Your task to perform on an android device: open sync settings in chrome Image 0: 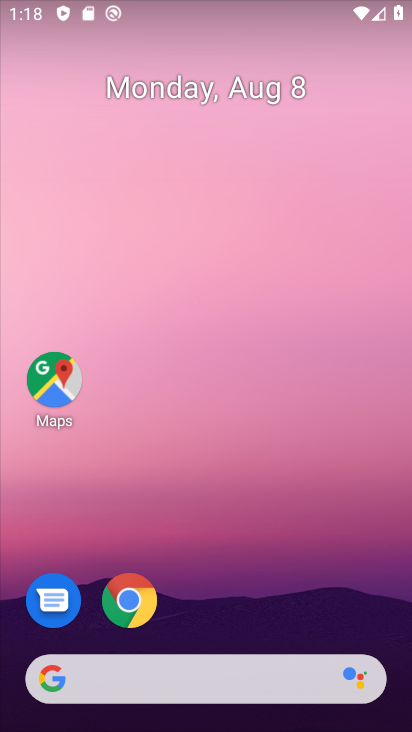
Step 0: drag from (288, 601) to (266, 22)
Your task to perform on an android device: open sync settings in chrome Image 1: 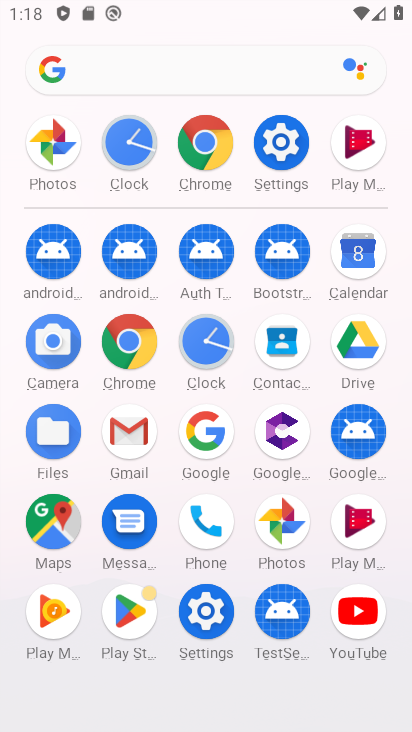
Step 1: click (186, 133)
Your task to perform on an android device: open sync settings in chrome Image 2: 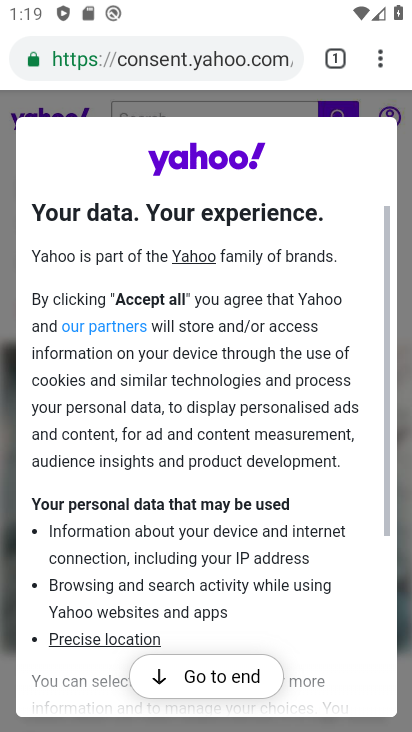
Step 2: drag from (379, 64) to (289, 714)
Your task to perform on an android device: open sync settings in chrome Image 3: 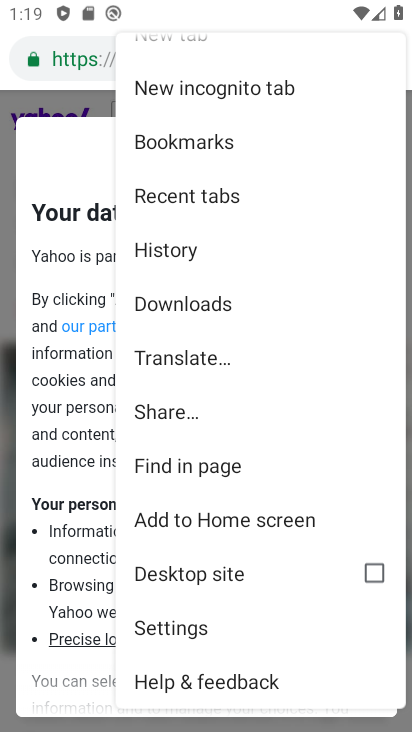
Step 3: click (212, 617)
Your task to perform on an android device: open sync settings in chrome Image 4: 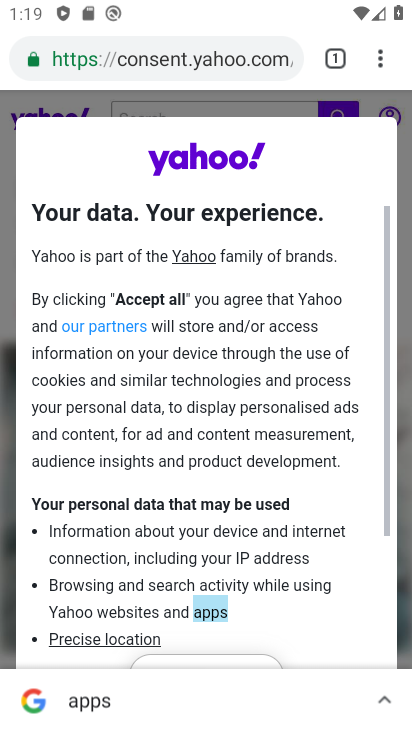
Step 4: drag from (377, 65) to (225, 619)
Your task to perform on an android device: open sync settings in chrome Image 5: 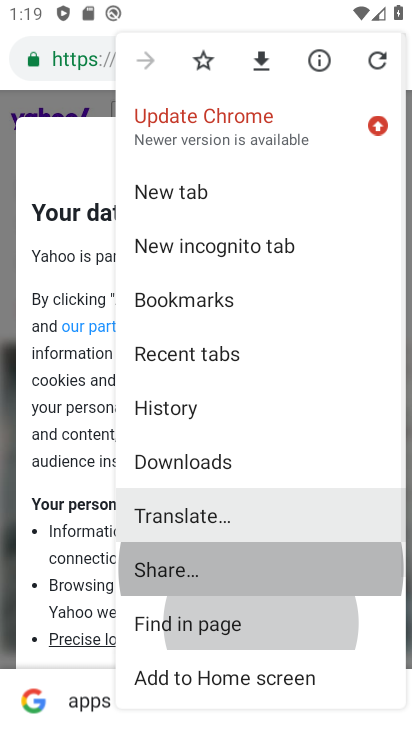
Step 5: click (225, 620)
Your task to perform on an android device: open sync settings in chrome Image 6: 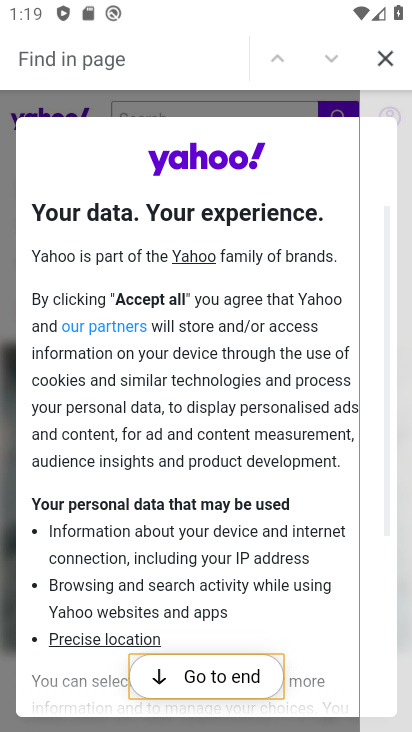
Step 6: click (378, 52)
Your task to perform on an android device: open sync settings in chrome Image 7: 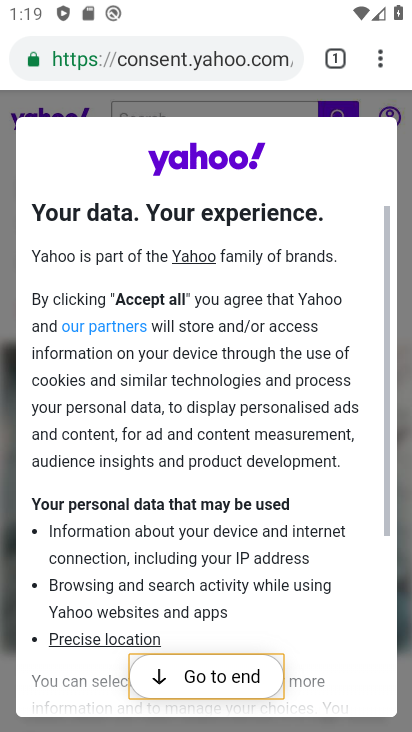
Step 7: click (378, 52)
Your task to perform on an android device: open sync settings in chrome Image 8: 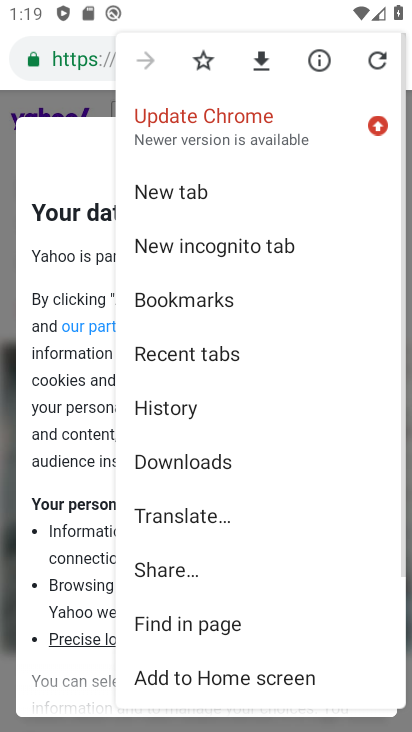
Step 8: drag from (251, 556) to (241, 241)
Your task to perform on an android device: open sync settings in chrome Image 9: 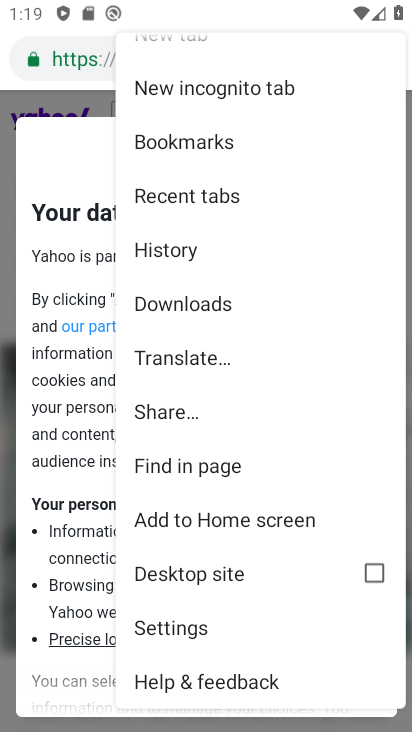
Step 9: click (176, 639)
Your task to perform on an android device: open sync settings in chrome Image 10: 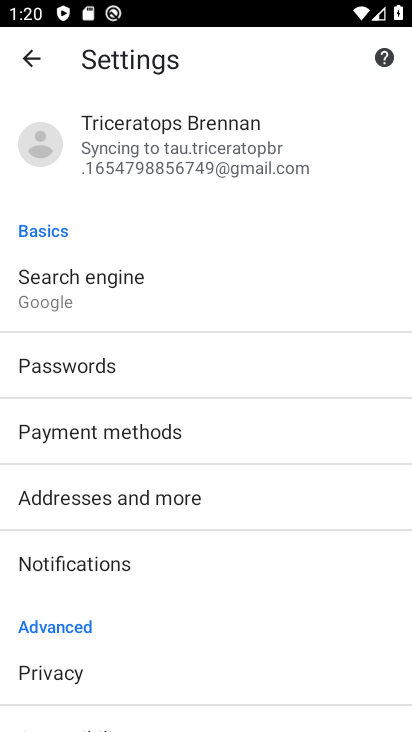
Step 10: click (139, 162)
Your task to perform on an android device: open sync settings in chrome Image 11: 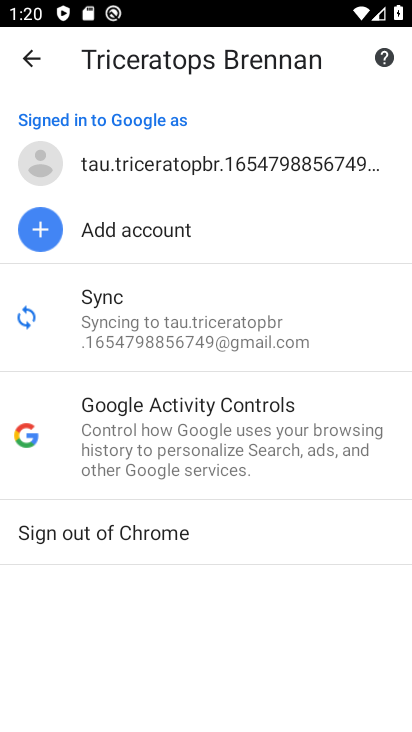
Step 11: click (158, 306)
Your task to perform on an android device: open sync settings in chrome Image 12: 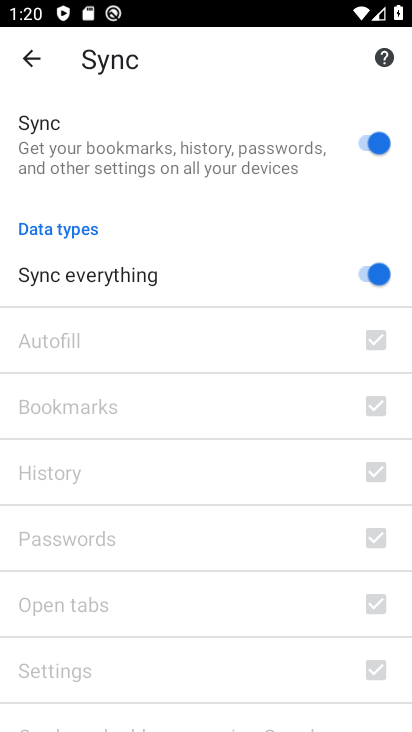
Step 12: task complete